Your task to perform on an android device: Open ESPN.com Image 0: 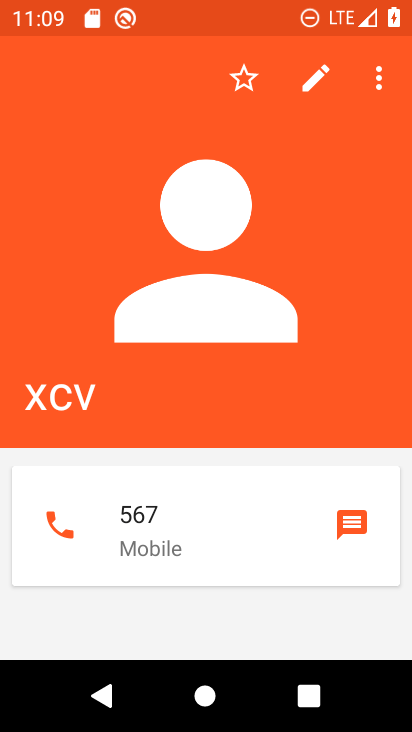
Step 0: press home button
Your task to perform on an android device: Open ESPN.com Image 1: 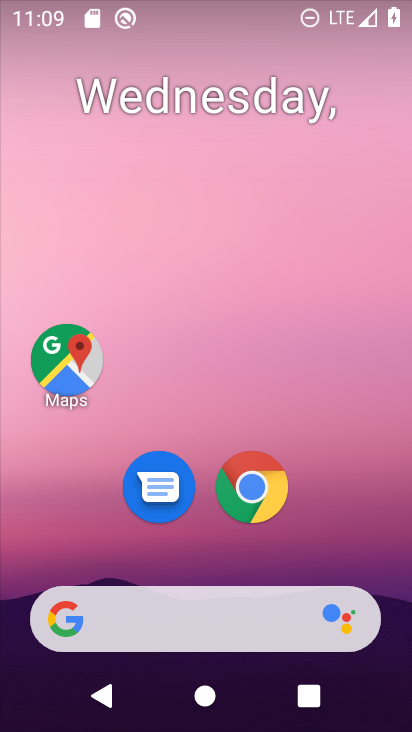
Step 1: click (245, 487)
Your task to perform on an android device: Open ESPN.com Image 2: 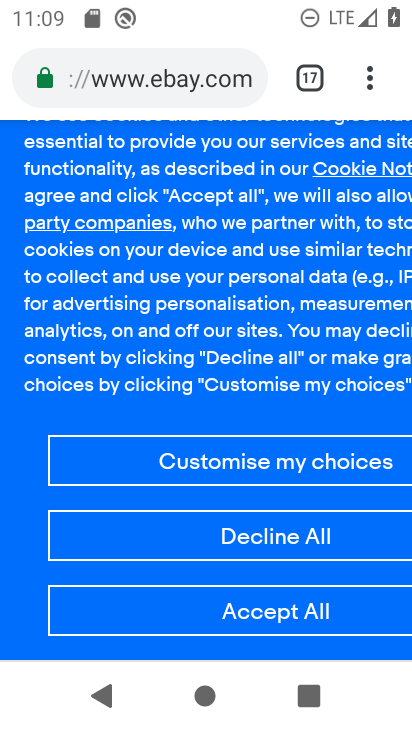
Step 2: click (366, 70)
Your task to perform on an android device: Open ESPN.com Image 3: 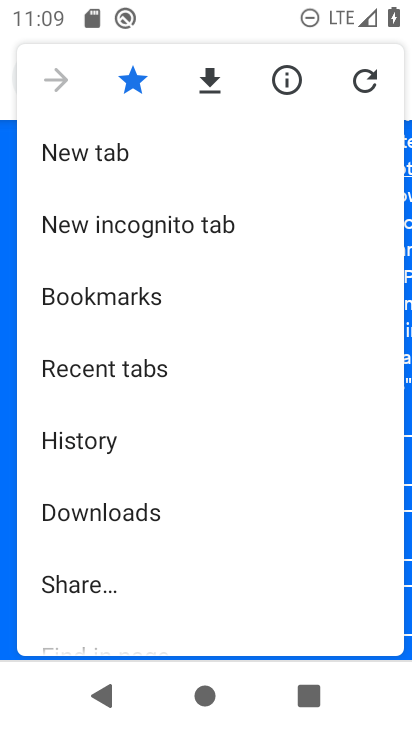
Step 3: click (102, 150)
Your task to perform on an android device: Open ESPN.com Image 4: 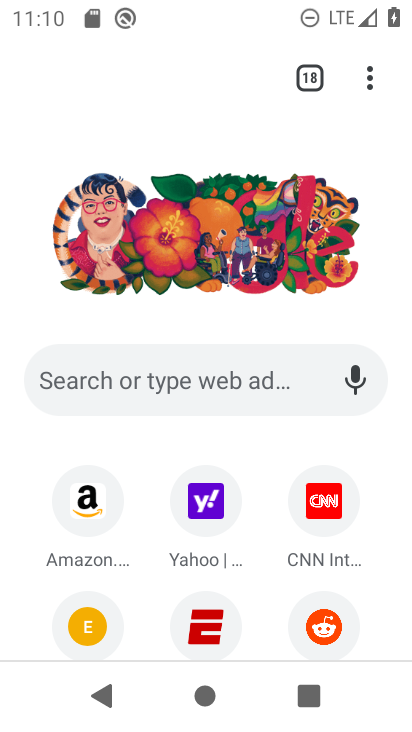
Step 4: drag from (151, 572) to (92, 216)
Your task to perform on an android device: Open ESPN.com Image 5: 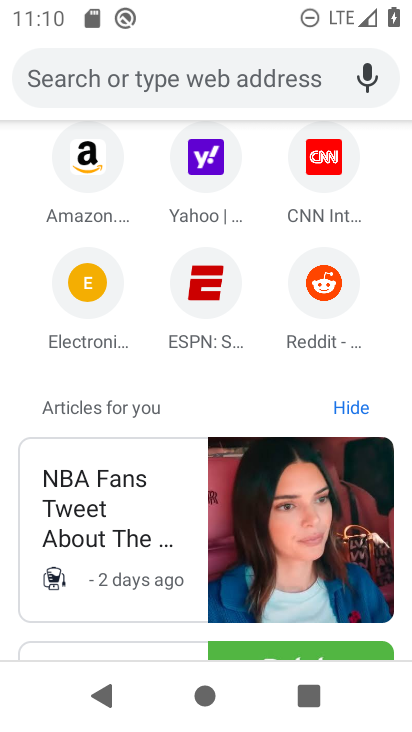
Step 5: click (195, 286)
Your task to perform on an android device: Open ESPN.com Image 6: 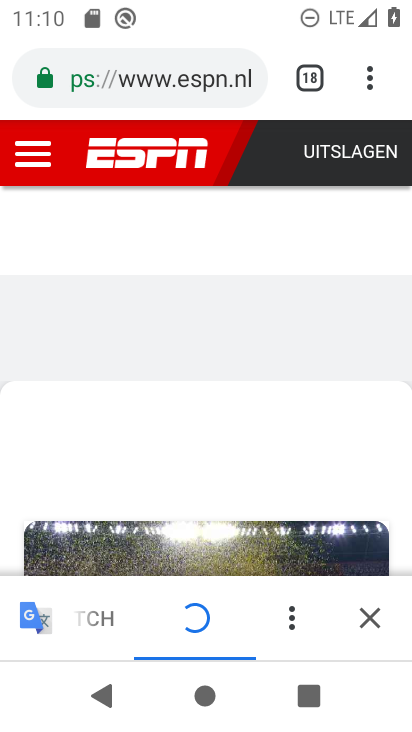
Step 6: task complete